Your task to perform on an android device: Open Google Chrome Image 0: 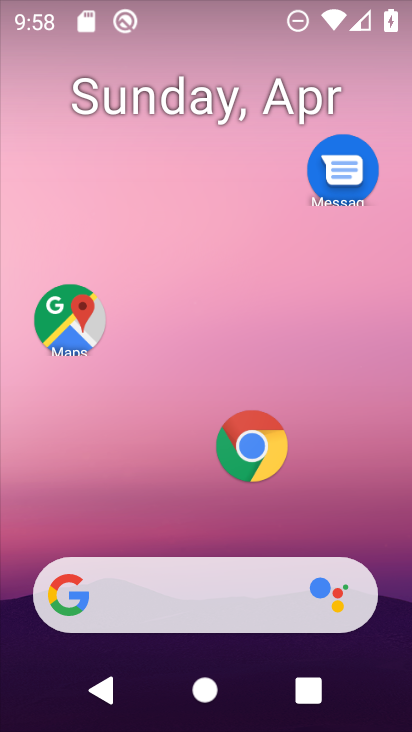
Step 0: drag from (204, 350) to (204, 284)
Your task to perform on an android device: Open Google Chrome Image 1: 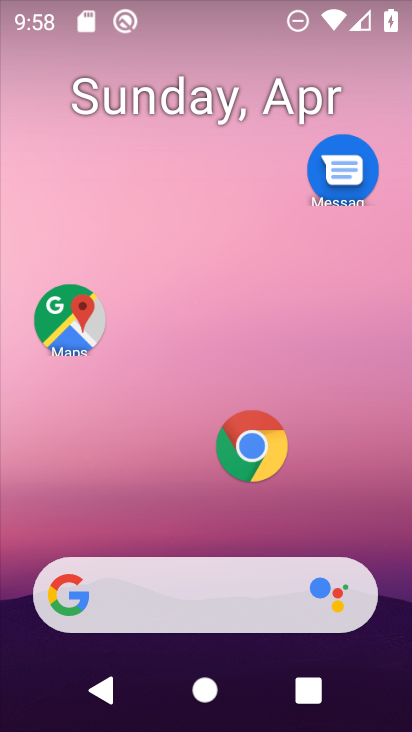
Step 1: click (210, 188)
Your task to perform on an android device: Open Google Chrome Image 2: 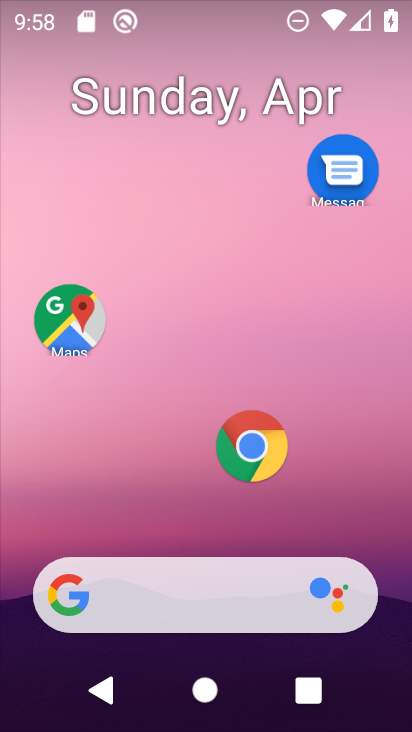
Step 2: click (259, 438)
Your task to perform on an android device: Open Google Chrome Image 3: 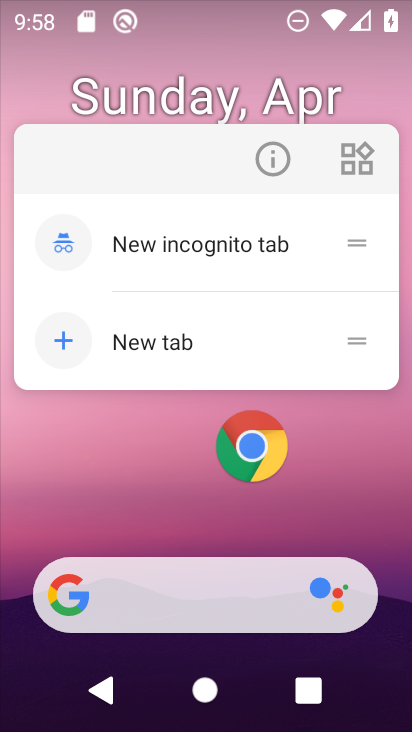
Step 3: click (266, 152)
Your task to perform on an android device: Open Google Chrome Image 4: 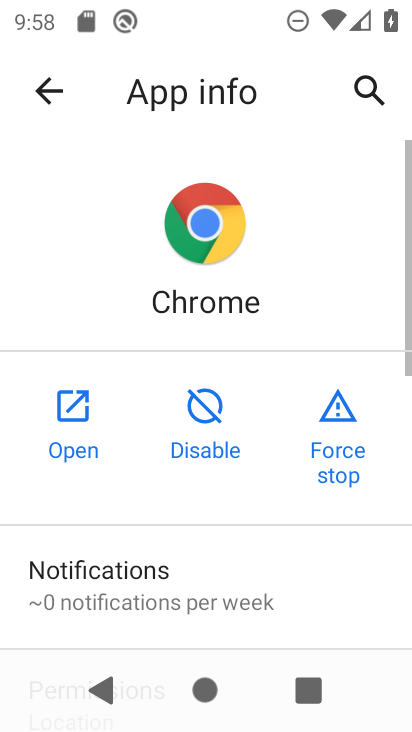
Step 4: click (84, 431)
Your task to perform on an android device: Open Google Chrome Image 5: 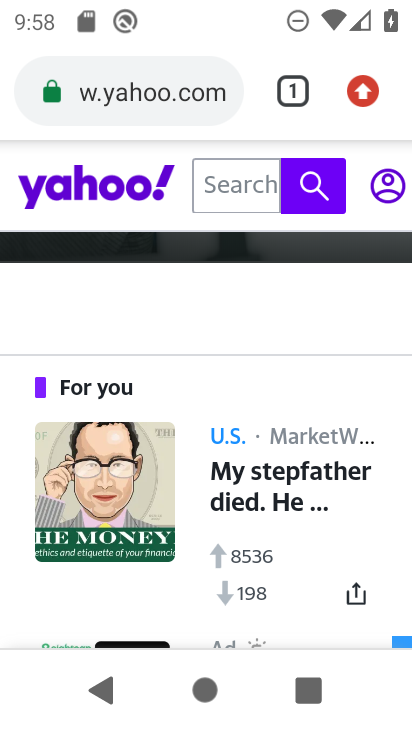
Step 5: task complete